Your task to perform on an android device: Open calendar and show me the fourth week of next month Image 0: 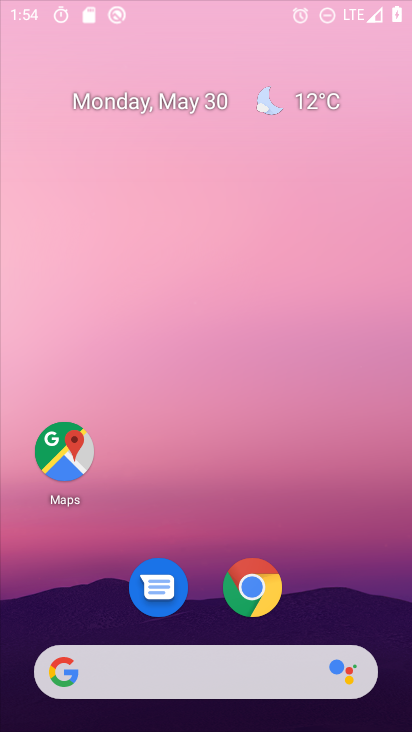
Step 0: drag from (308, 526) to (240, 112)
Your task to perform on an android device: Open calendar and show me the fourth week of next month Image 1: 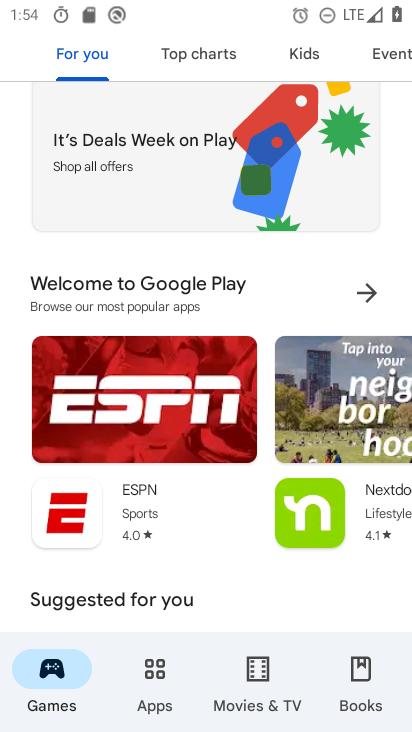
Step 1: press home button
Your task to perform on an android device: Open calendar and show me the fourth week of next month Image 2: 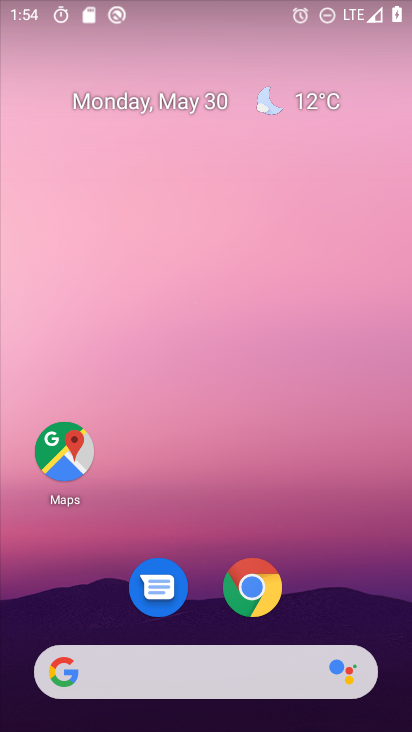
Step 2: drag from (358, 585) to (333, 97)
Your task to perform on an android device: Open calendar and show me the fourth week of next month Image 3: 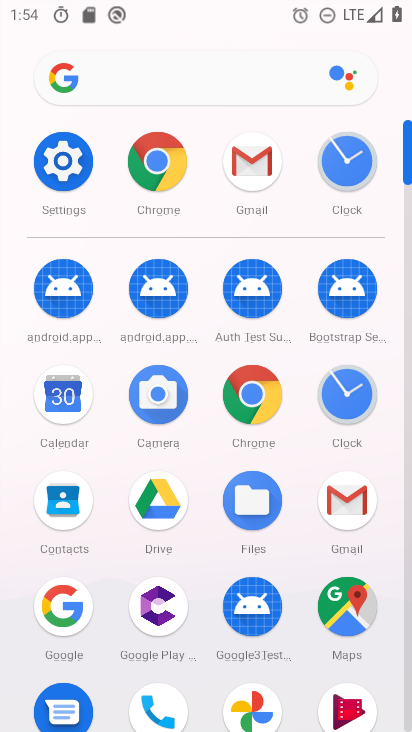
Step 3: click (49, 394)
Your task to perform on an android device: Open calendar and show me the fourth week of next month Image 4: 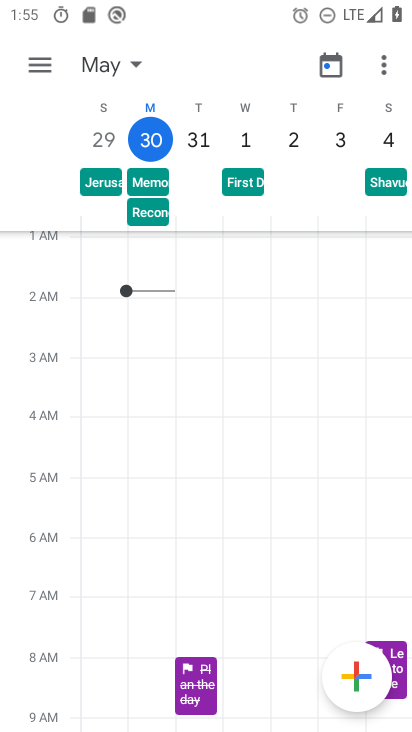
Step 4: click (101, 62)
Your task to perform on an android device: Open calendar and show me the fourth week of next month Image 5: 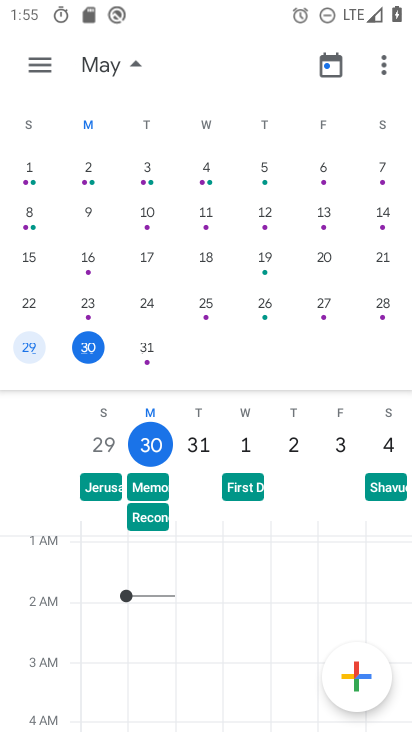
Step 5: drag from (360, 297) to (34, 261)
Your task to perform on an android device: Open calendar and show me the fourth week of next month Image 6: 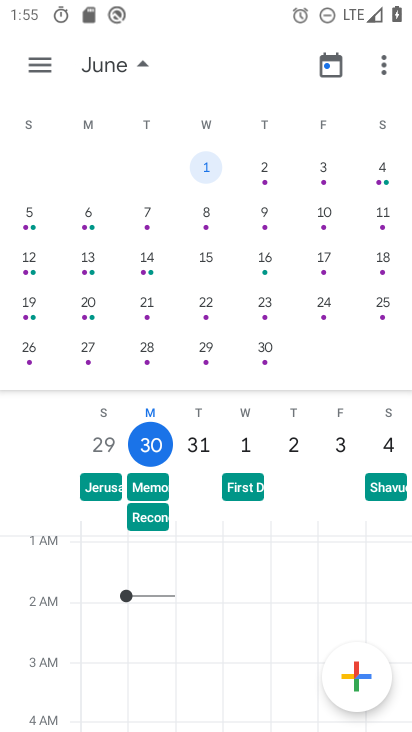
Step 6: click (29, 350)
Your task to perform on an android device: Open calendar and show me the fourth week of next month Image 7: 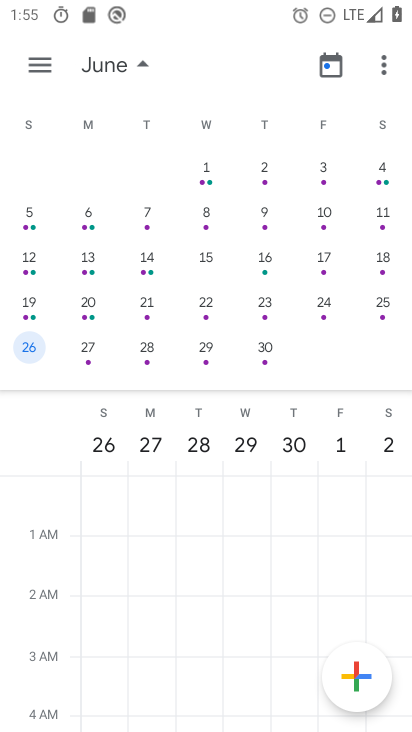
Step 7: task complete